Your task to perform on an android device: add a contact in the contacts app Image 0: 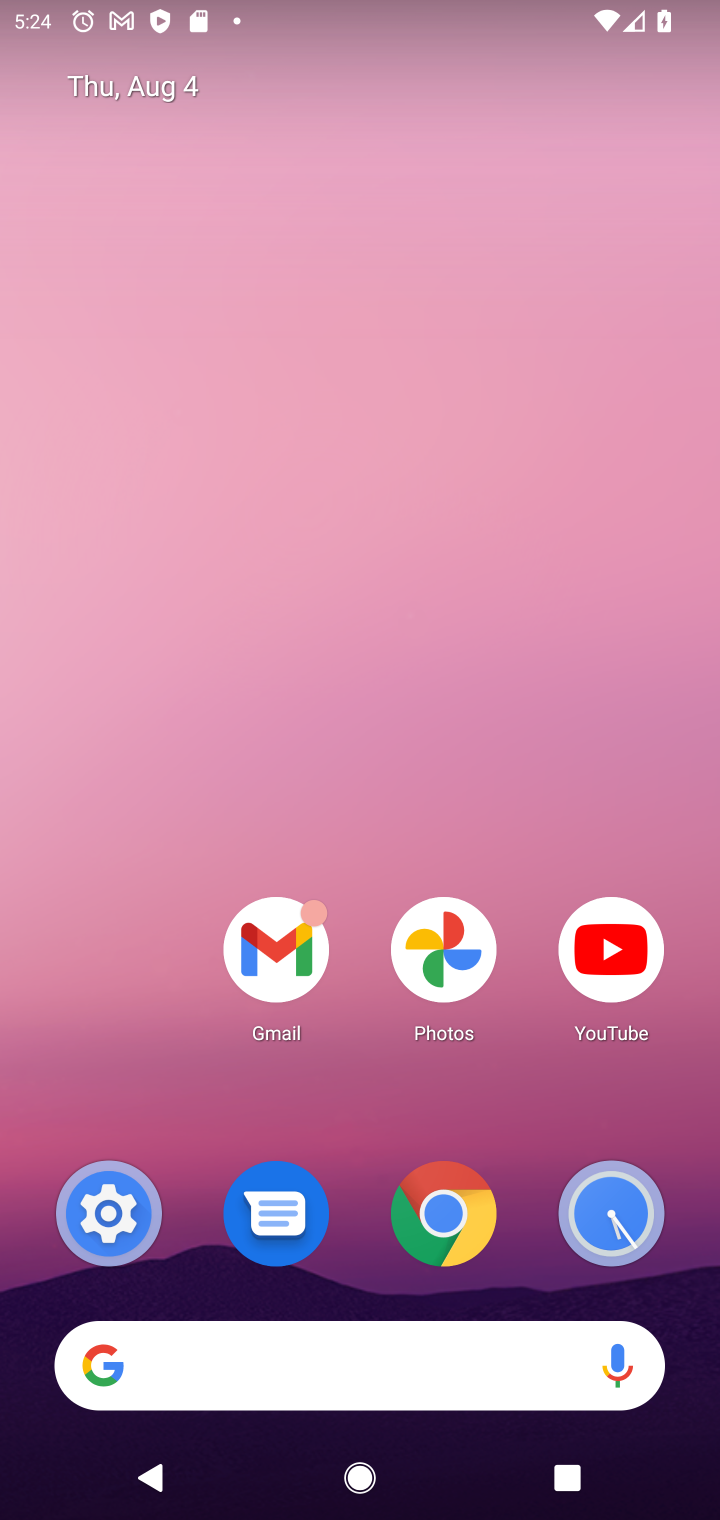
Step 0: drag from (134, 984) to (137, 25)
Your task to perform on an android device: add a contact in the contacts app Image 1: 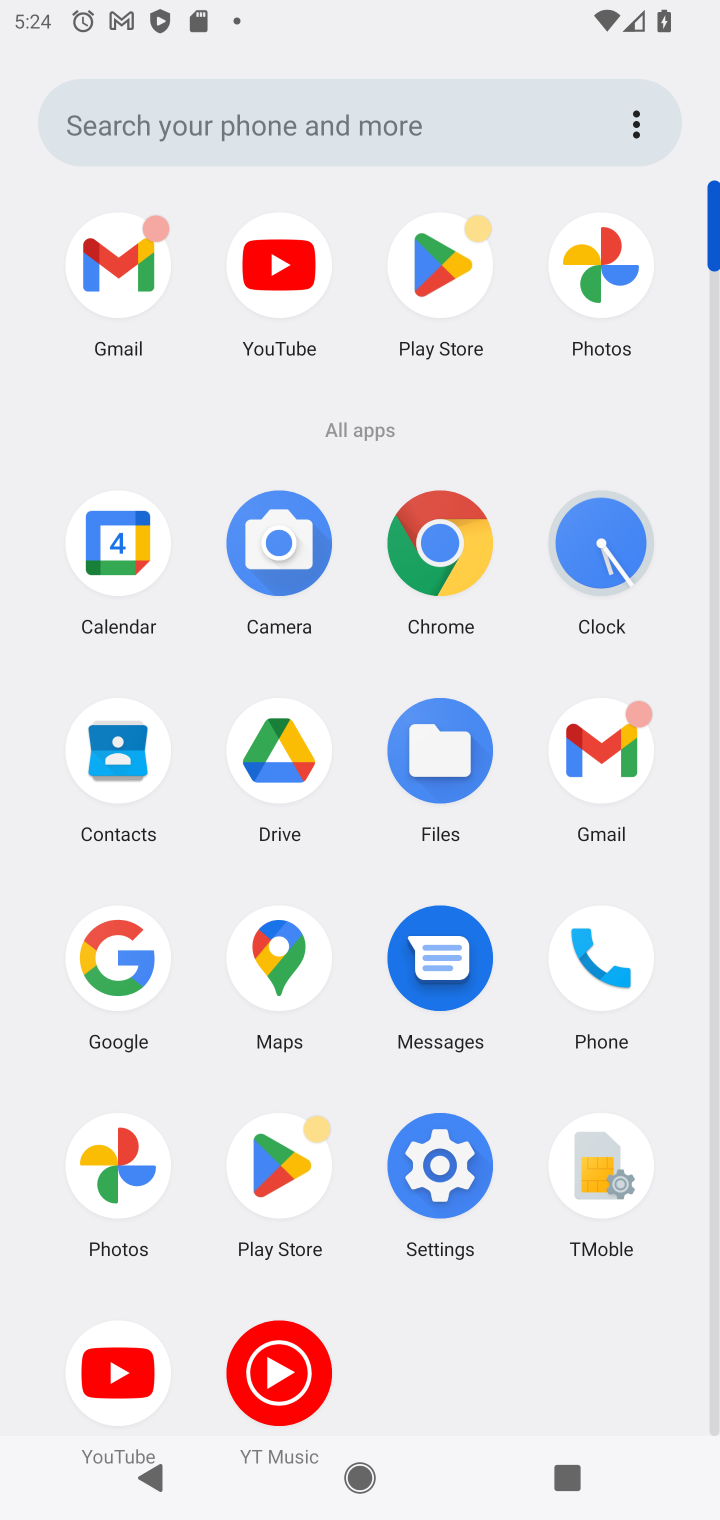
Step 1: click (115, 759)
Your task to perform on an android device: add a contact in the contacts app Image 2: 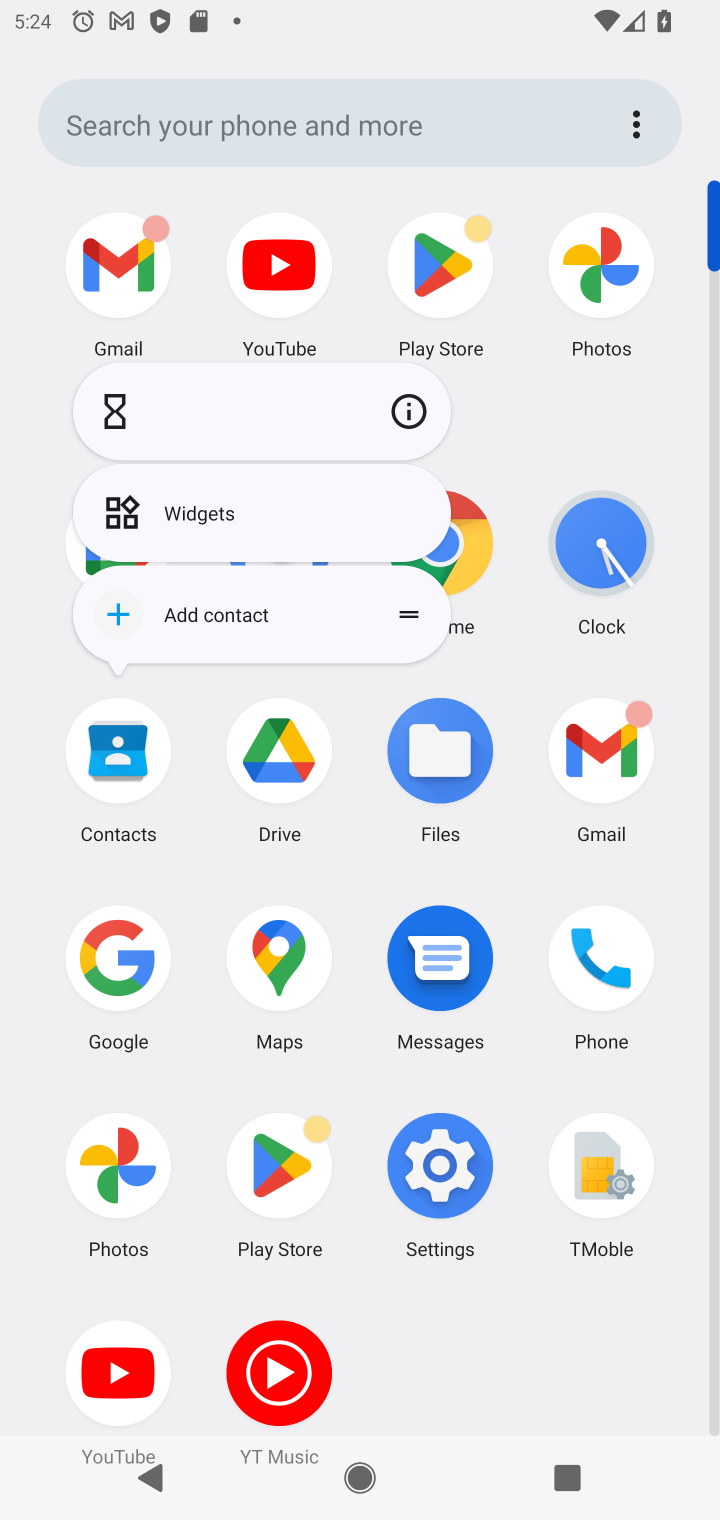
Step 2: click (115, 759)
Your task to perform on an android device: add a contact in the contacts app Image 3: 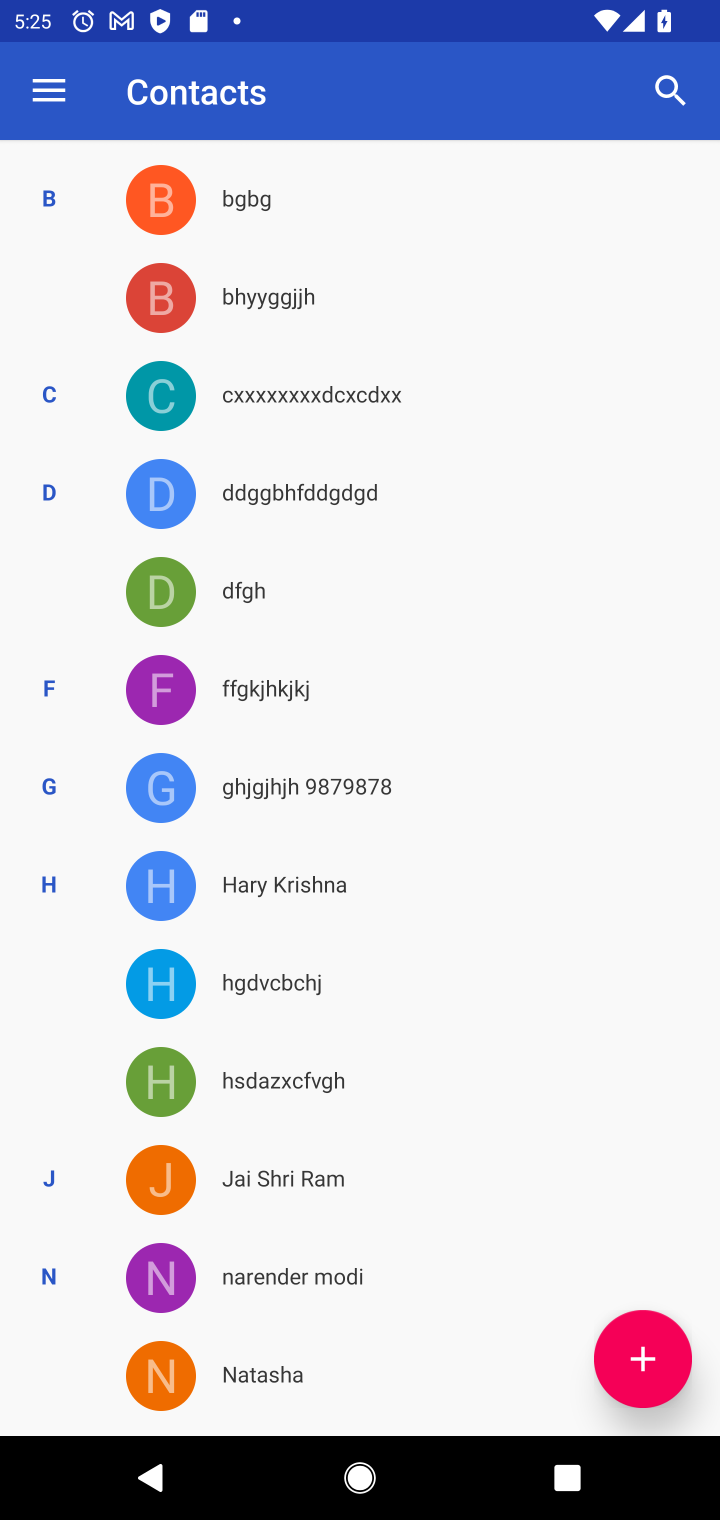
Step 3: click (631, 1373)
Your task to perform on an android device: add a contact in the contacts app Image 4: 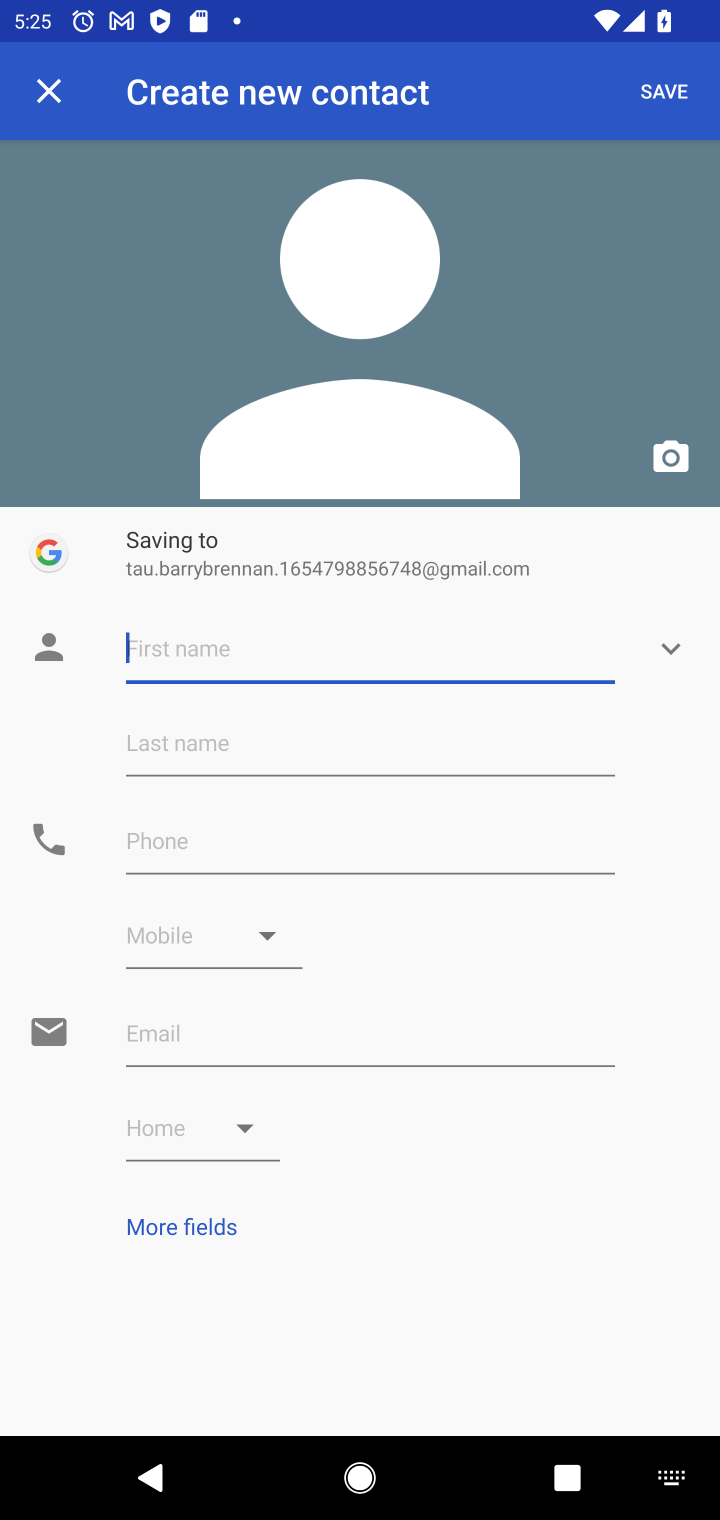
Step 4: click (196, 662)
Your task to perform on an android device: add a contact in the contacts app Image 5: 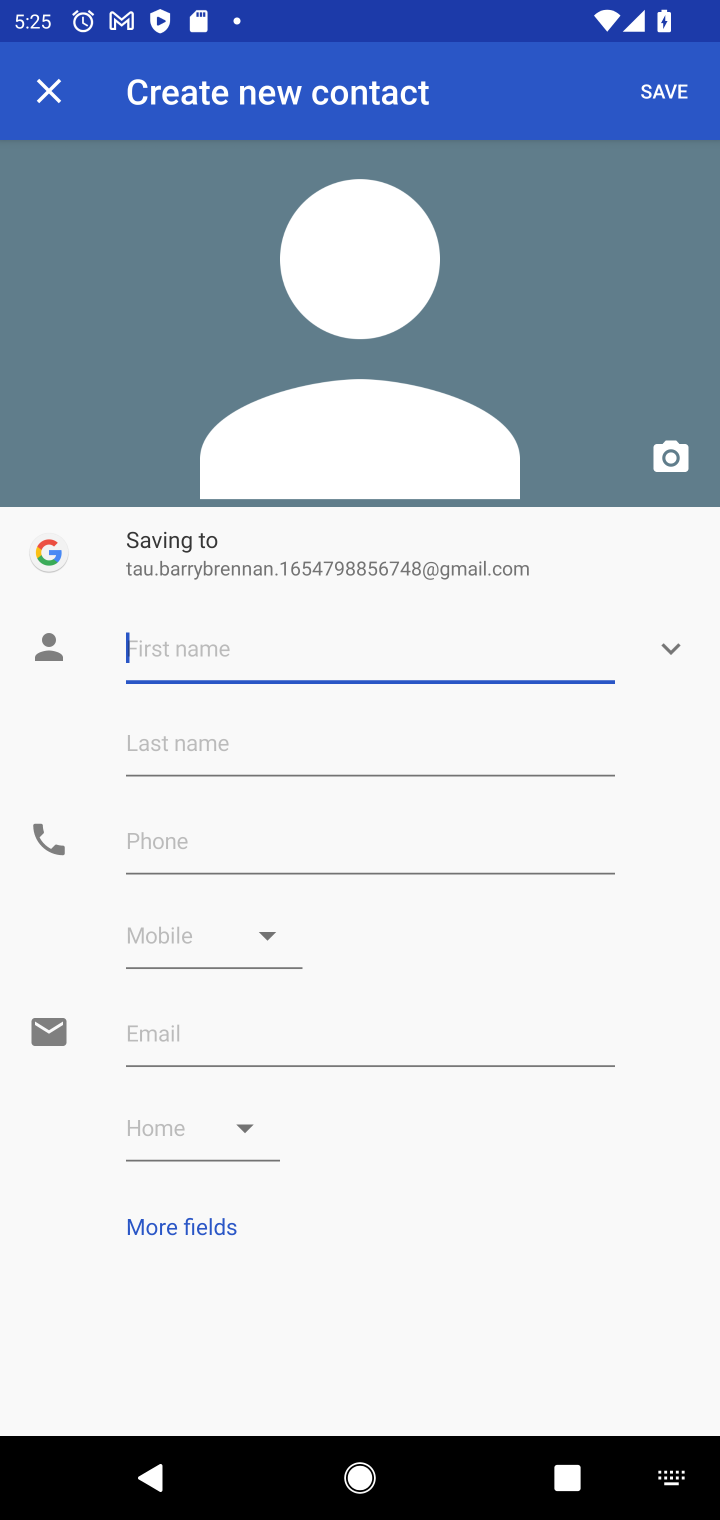
Step 5: type "yamni"
Your task to perform on an android device: add a contact in the contacts app Image 6: 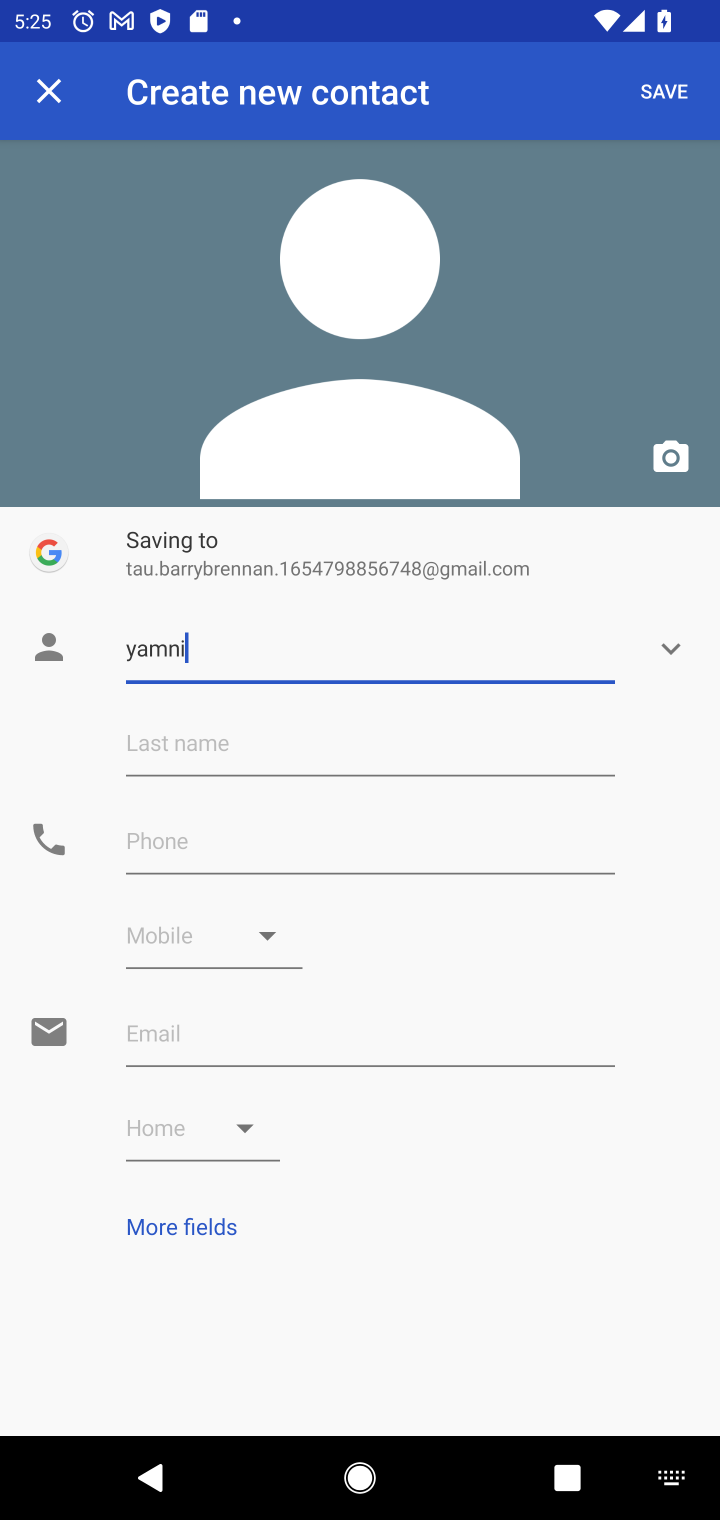
Step 6: click (226, 850)
Your task to perform on an android device: add a contact in the contacts app Image 7: 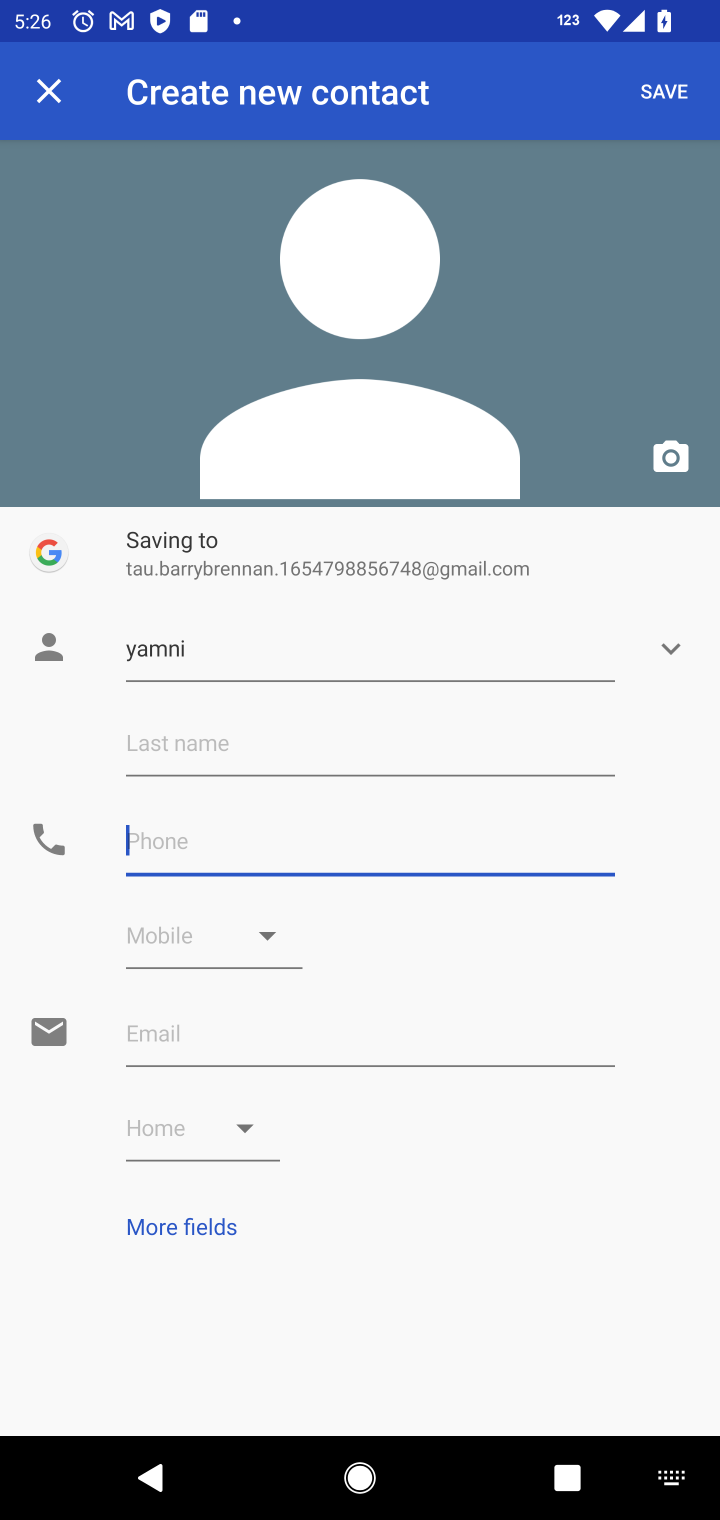
Step 7: type "876543223"
Your task to perform on an android device: add a contact in the contacts app Image 8: 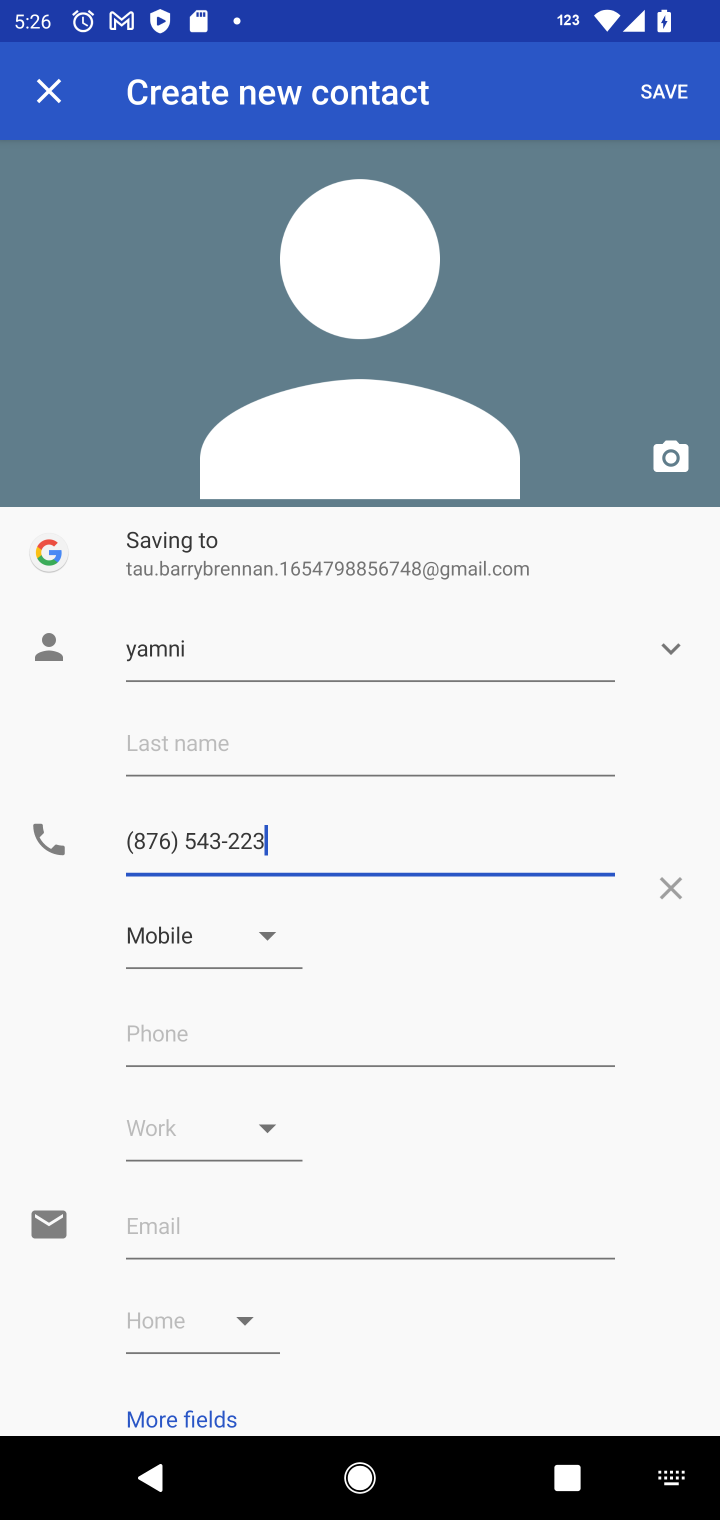
Step 8: click (661, 89)
Your task to perform on an android device: add a contact in the contacts app Image 9: 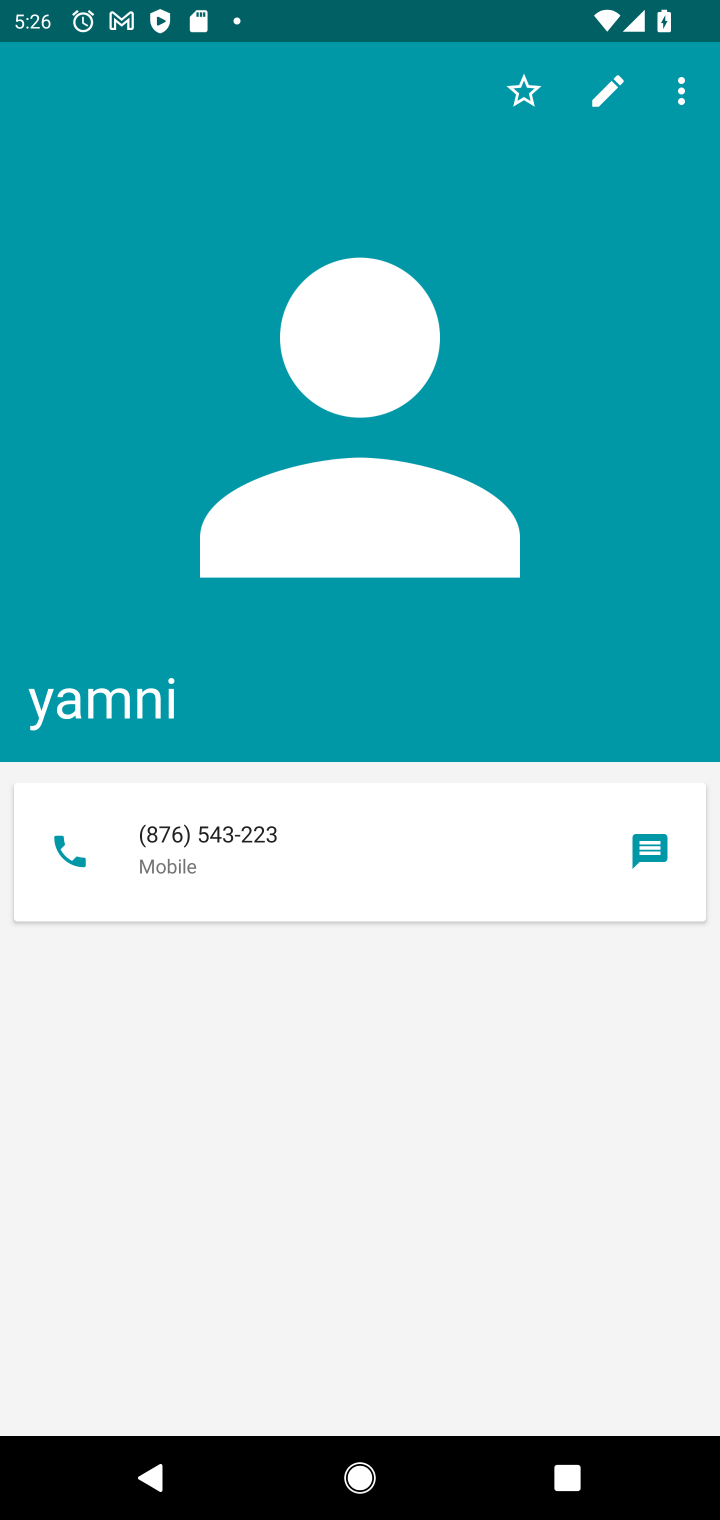
Step 9: task complete